Your task to perform on an android device: Go to Google maps Image 0: 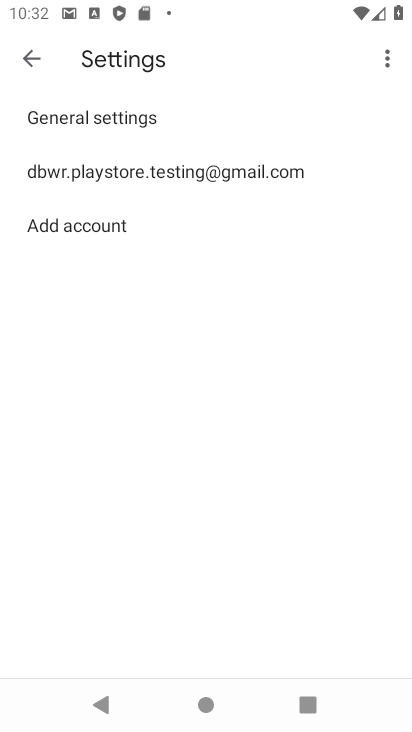
Step 0: press home button
Your task to perform on an android device: Go to Google maps Image 1: 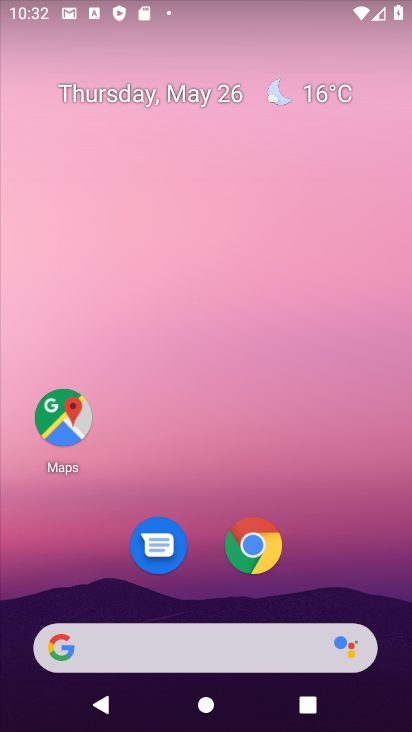
Step 1: click (50, 422)
Your task to perform on an android device: Go to Google maps Image 2: 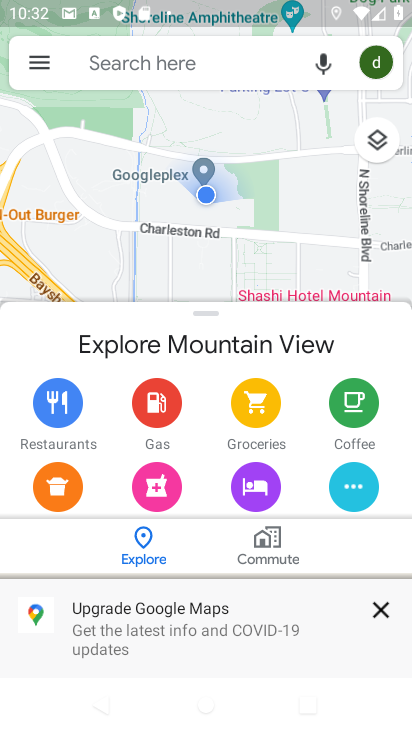
Step 2: task complete